Your task to perform on an android device: open app "Airtel Thanks" (install if not already installed) Image 0: 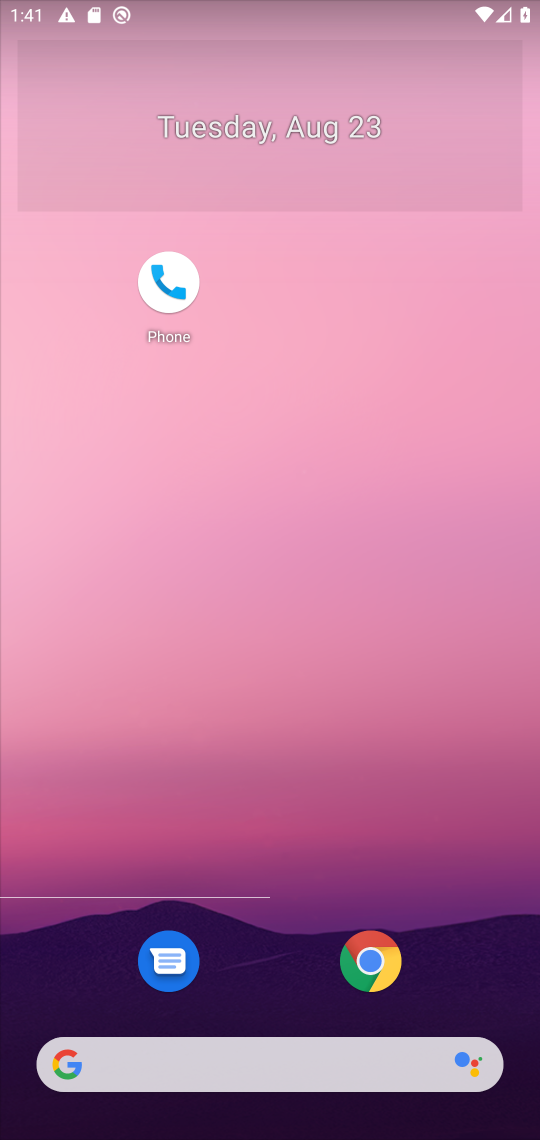
Step 0: task complete